Your task to perform on an android device: turn on wifi Image 0: 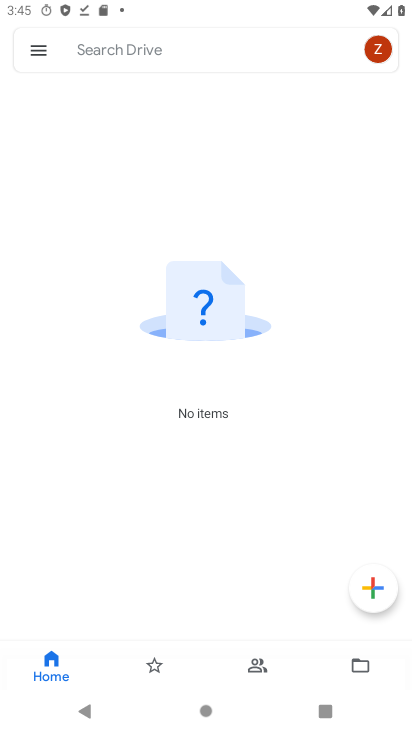
Step 0: press back button
Your task to perform on an android device: turn on wifi Image 1: 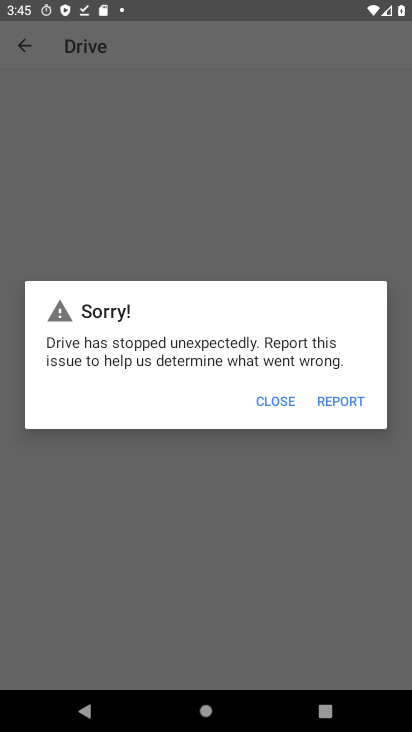
Step 1: click (282, 402)
Your task to perform on an android device: turn on wifi Image 2: 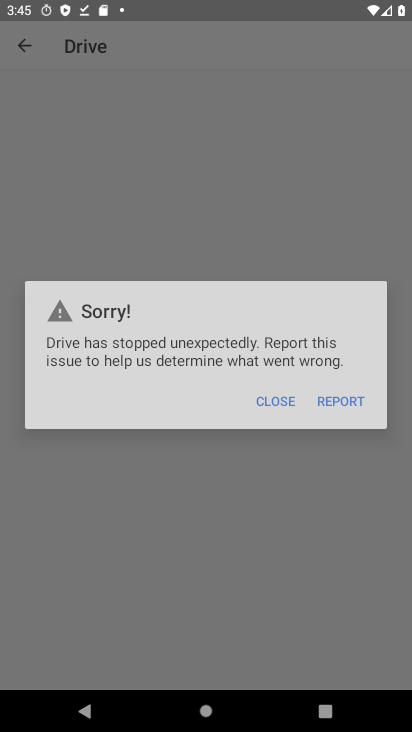
Step 2: click (281, 401)
Your task to perform on an android device: turn on wifi Image 3: 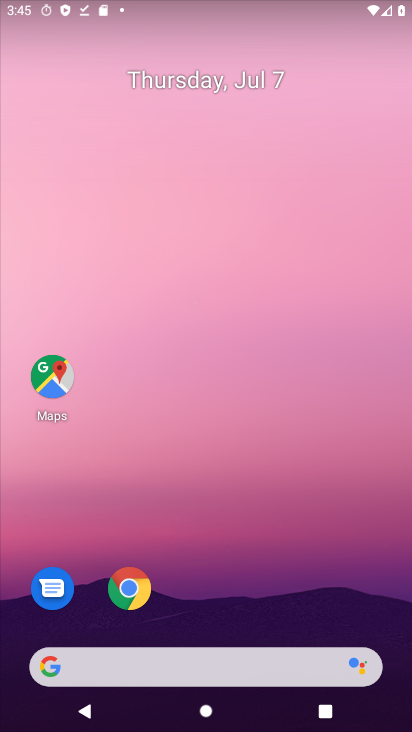
Step 3: drag from (280, 698) to (152, 131)
Your task to perform on an android device: turn on wifi Image 4: 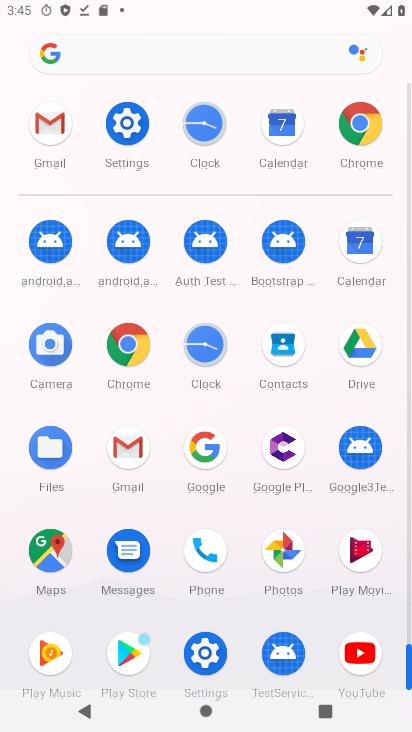
Step 4: click (128, 137)
Your task to perform on an android device: turn on wifi Image 5: 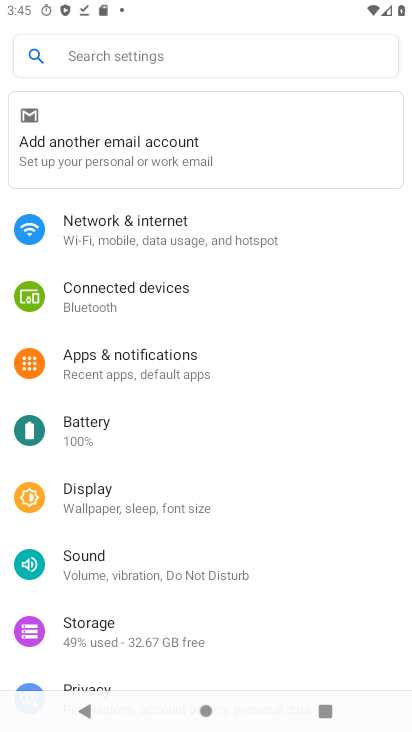
Step 5: click (111, 227)
Your task to perform on an android device: turn on wifi Image 6: 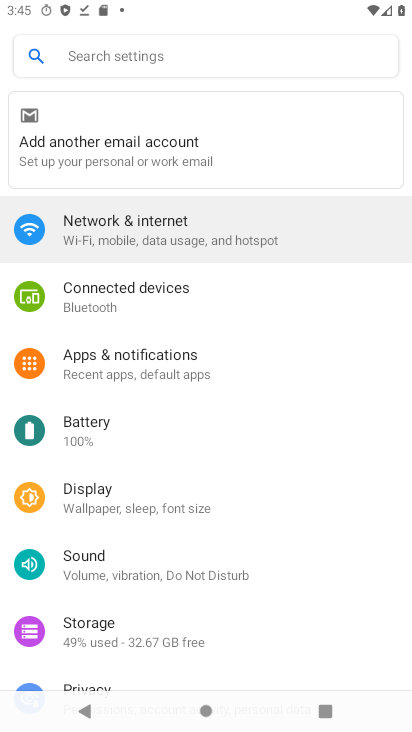
Step 6: click (118, 227)
Your task to perform on an android device: turn on wifi Image 7: 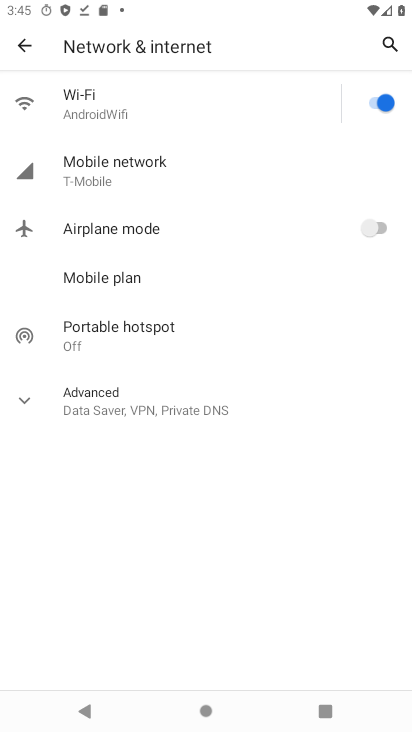
Step 7: task complete